Your task to perform on an android device: Do I have any events tomorrow? Image 0: 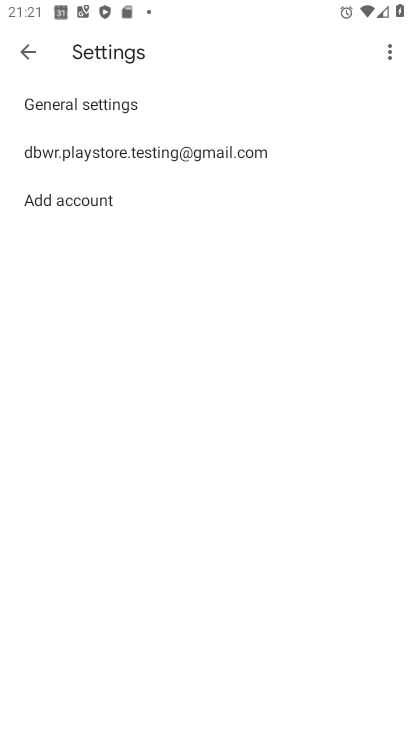
Step 0: press home button
Your task to perform on an android device: Do I have any events tomorrow? Image 1: 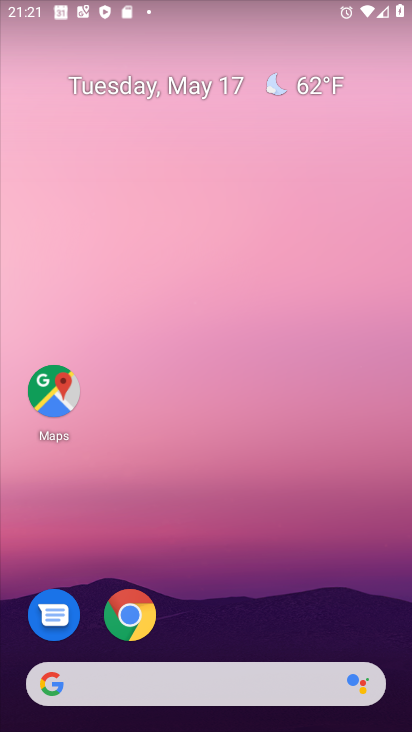
Step 1: drag from (243, 627) to (288, 102)
Your task to perform on an android device: Do I have any events tomorrow? Image 2: 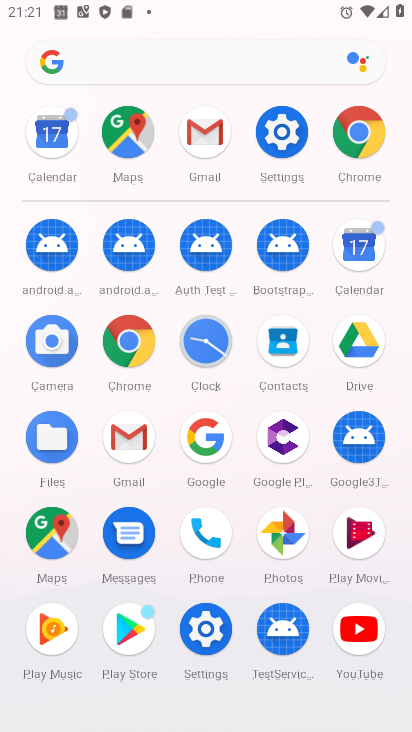
Step 2: click (364, 231)
Your task to perform on an android device: Do I have any events tomorrow? Image 3: 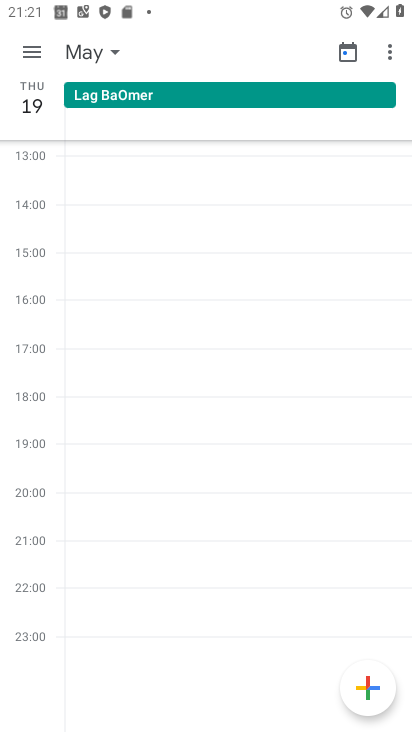
Step 3: click (102, 56)
Your task to perform on an android device: Do I have any events tomorrow? Image 4: 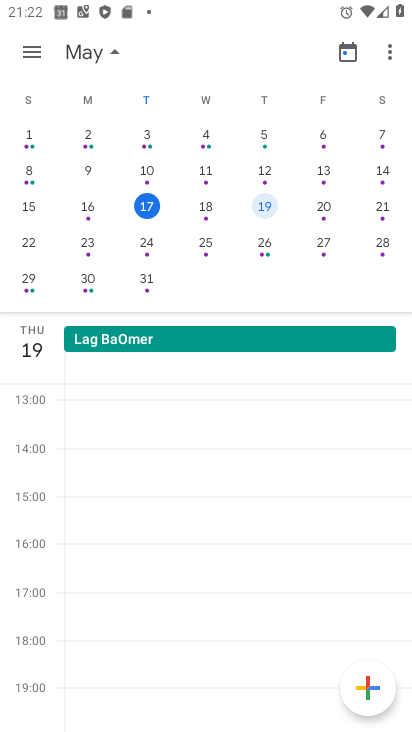
Step 4: click (268, 203)
Your task to perform on an android device: Do I have any events tomorrow? Image 5: 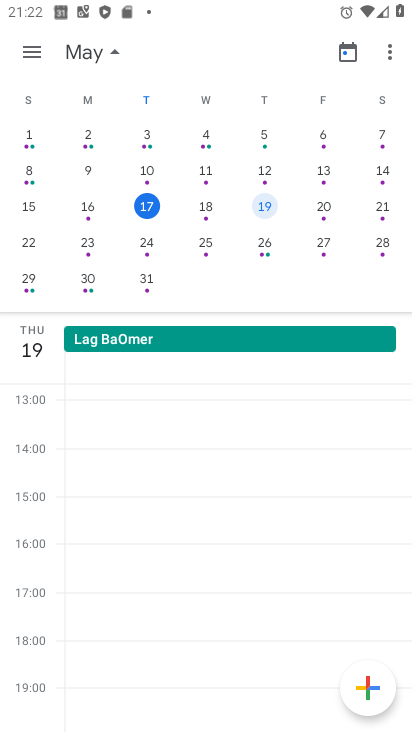
Step 5: task complete